Your task to perform on an android device: check data usage Image 0: 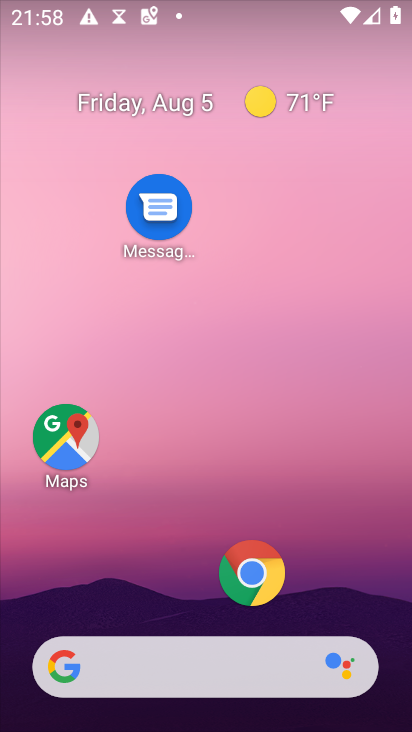
Step 0: drag from (198, 607) to (223, 20)
Your task to perform on an android device: check data usage Image 1: 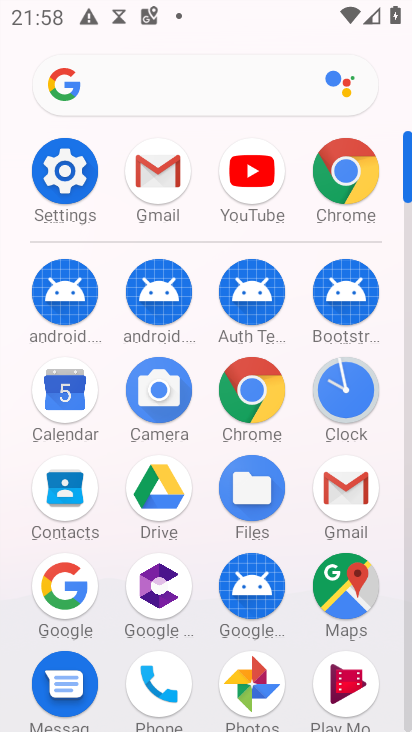
Step 1: click (64, 165)
Your task to perform on an android device: check data usage Image 2: 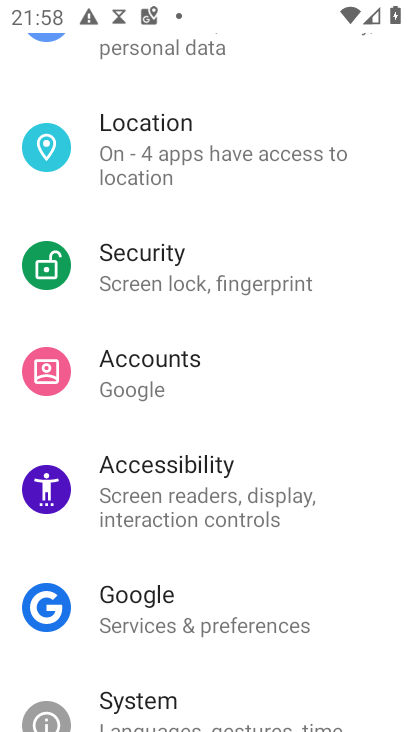
Step 2: drag from (241, 116) to (148, 724)
Your task to perform on an android device: check data usage Image 3: 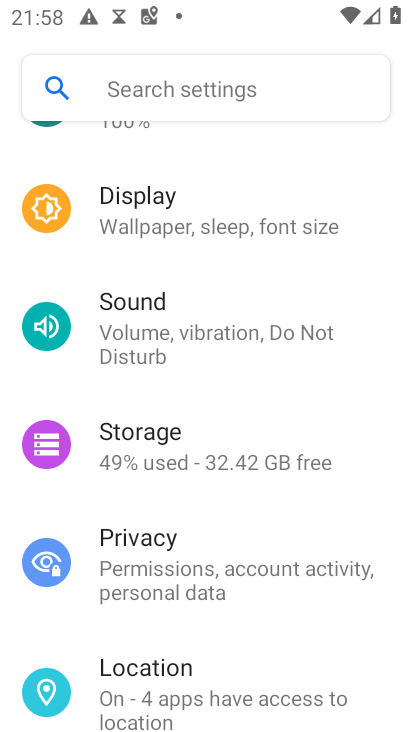
Step 3: drag from (184, 156) to (204, 722)
Your task to perform on an android device: check data usage Image 4: 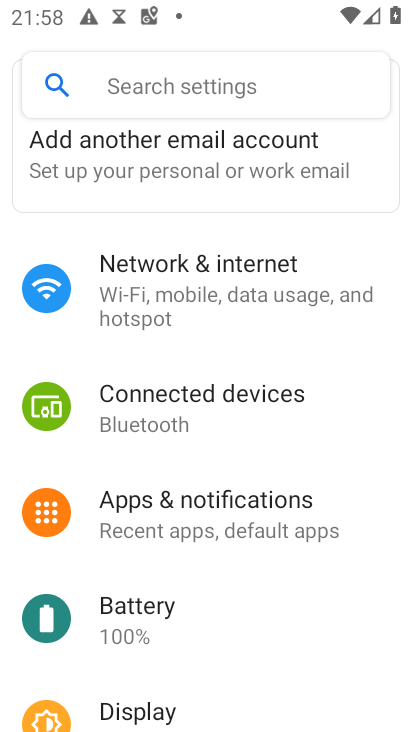
Step 4: click (209, 290)
Your task to perform on an android device: check data usage Image 5: 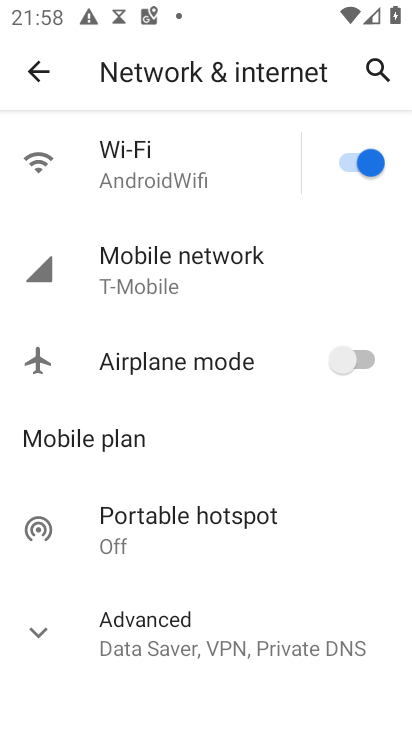
Step 5: click (194, 268)
Your task to perform on an android device: check data usage Image 6: 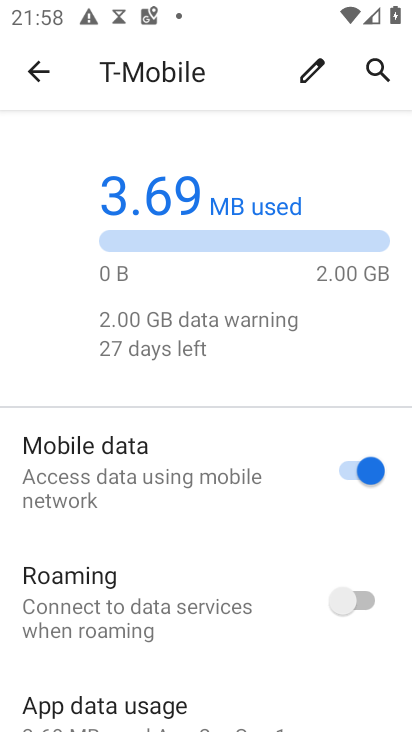
Step 6: click (104, 703)
Your task to perform on an android device: check data usage Image 7: 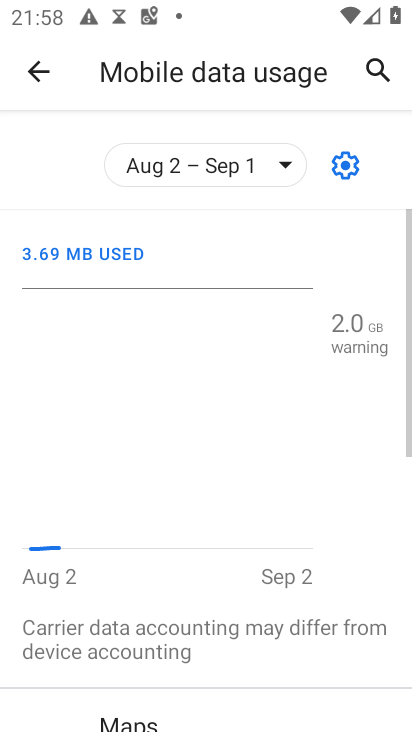
Step 7: task complete